Your task to perform on an android device: turn on airplane mode Image 0: 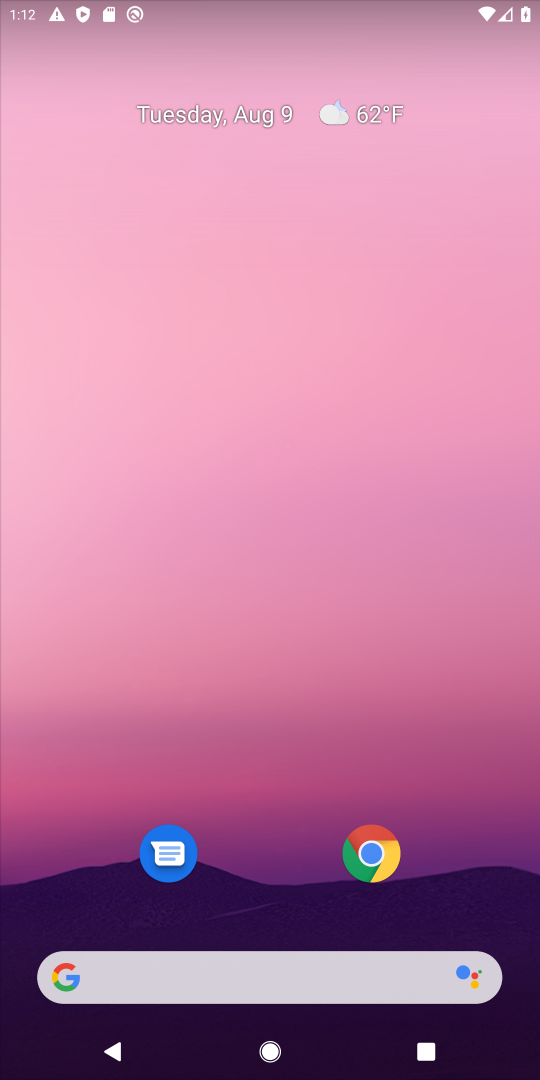
Step 0: press home button
Your task to perform on an android device: turn on airplane mode Image 1: 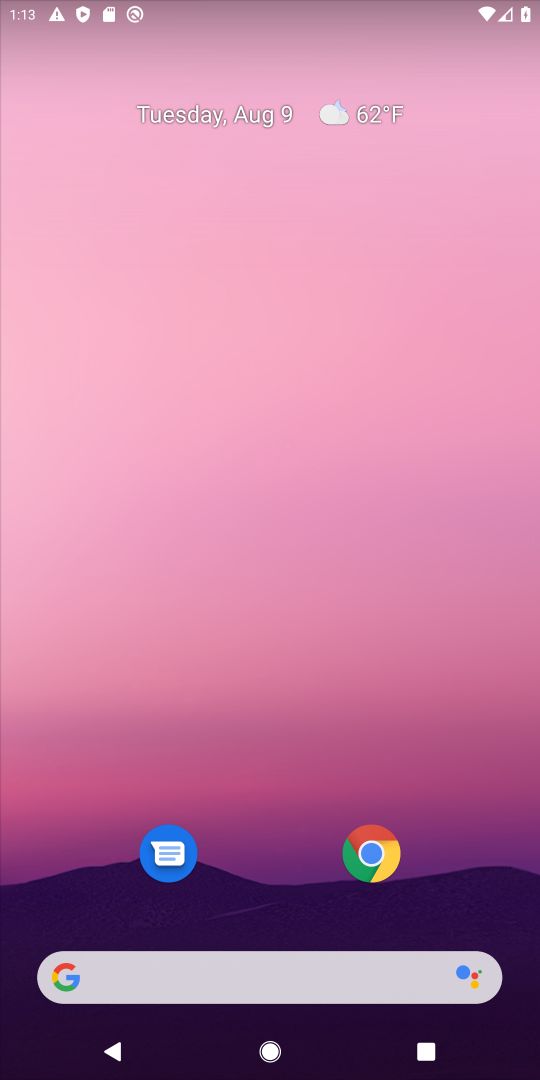
Step 1: drag from (282, 6) to (265, 522)
Your task to perform on an android device: turn on airplane mode Image 2: 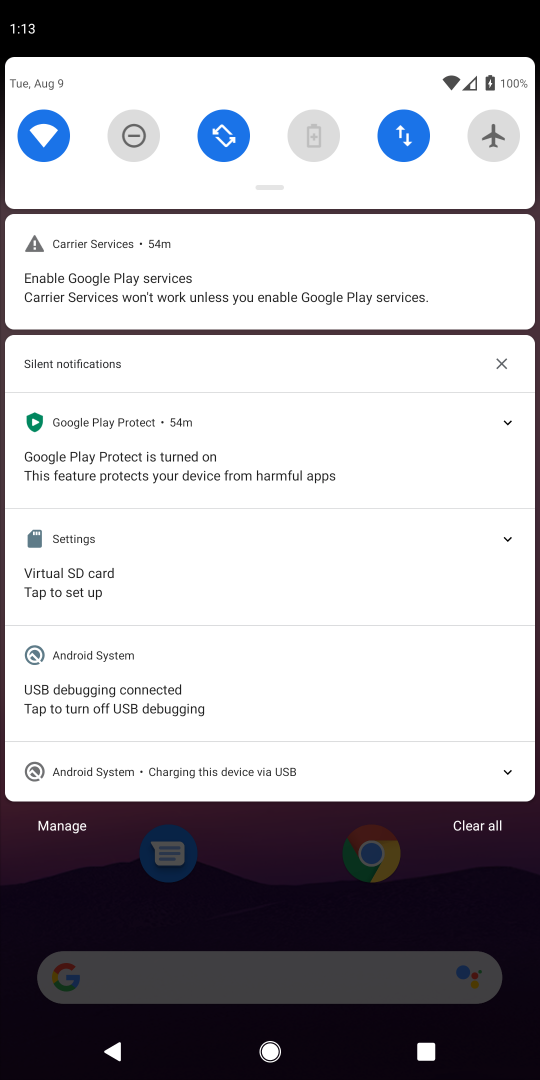
Step 2: drag from (270, 193) to (245, 960)
Your task to perform on an android device: turn on airplane mode Image 3: 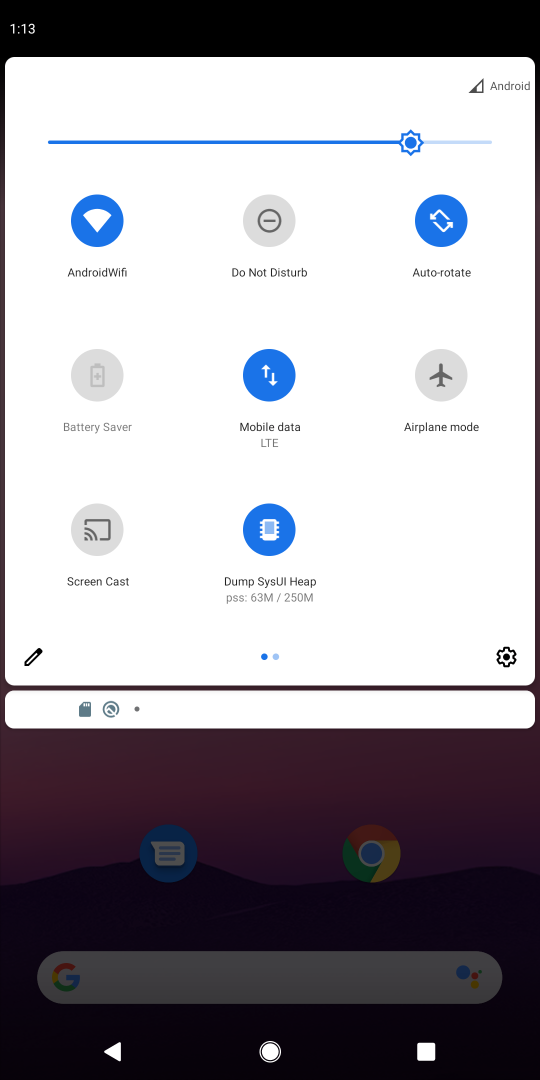
Step 3: click (437, 376)
Your task to perform on an android device: turn on airplane mode Image 4: 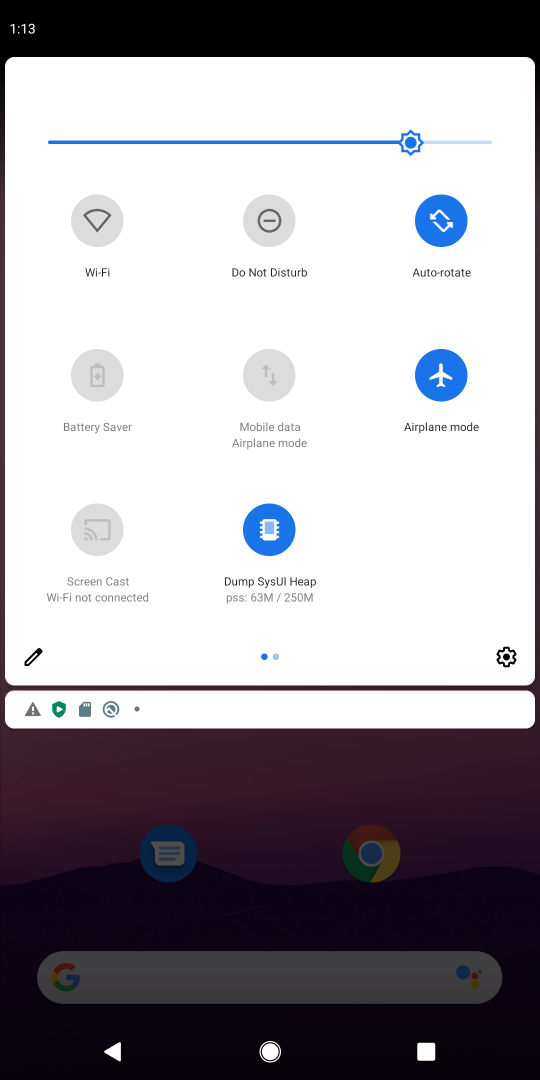
Step 4: task complete